Your task to perform on an android device: Find coffee shops on Maps Image 0: 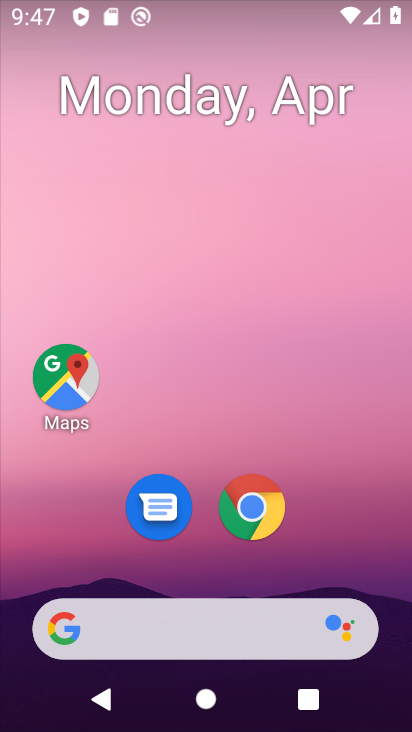
Step 0: click (82, 382)
Your task to perform on an android device: Find coffee shops on Maps Image 1: 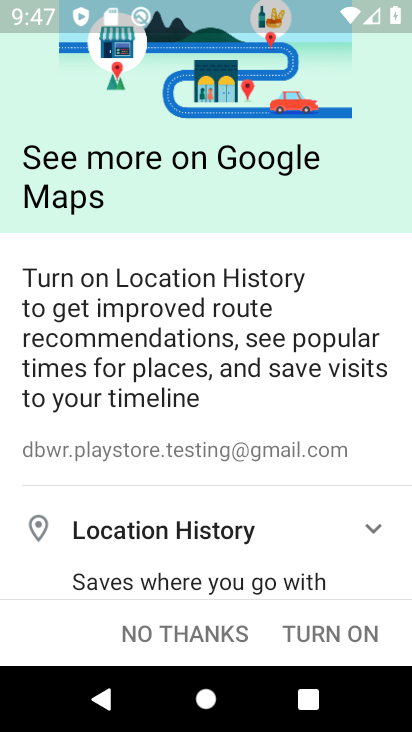
Step 1: click (239, 640)
Your task to perform on an android device: Find coffee shops on Maps Image 2: 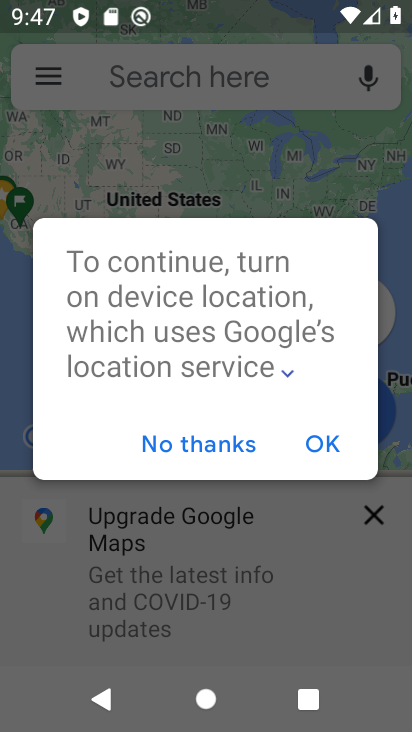
Step 2: click (328, 446)
Your task to perform on an android device: Find coffee shops on Maps Image 3: 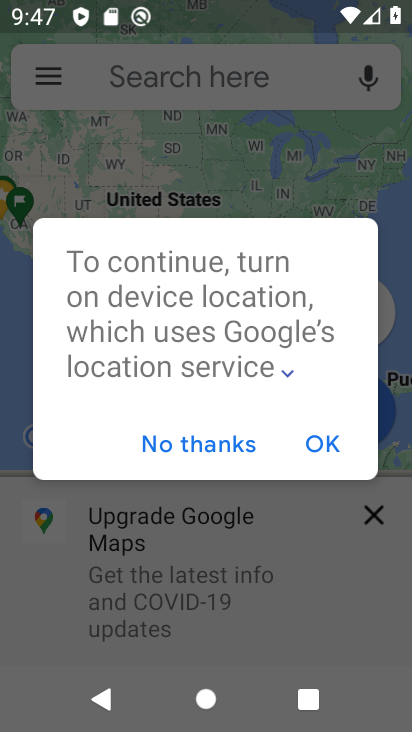
Step 3: click (328, 447)
Your task to perform on an android device: Find coffee shops on Maps Image 4: 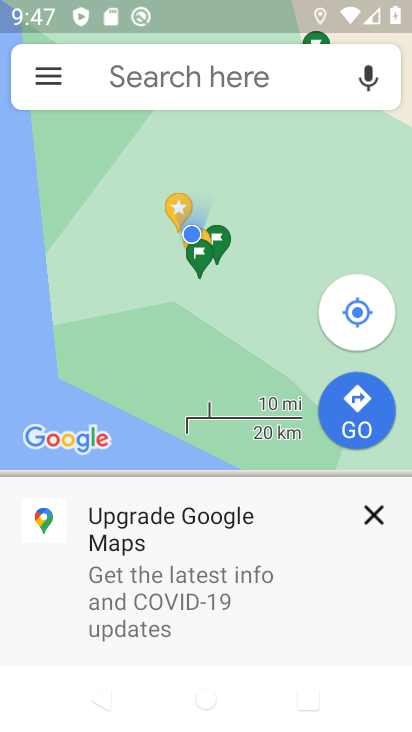
Step 4: click (247, 85)
Your task to perform on an android device: Find coffee shops on Maps Image 5: 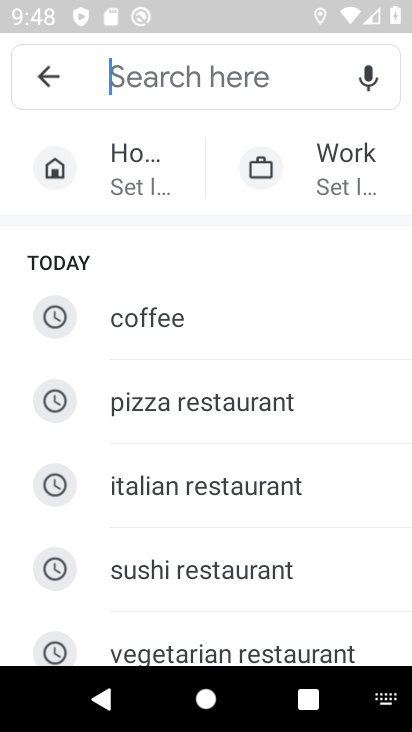
Step 5: type "coffee shops"
Your task to perform on an android device: Find coffee shops on Maps Image 6: 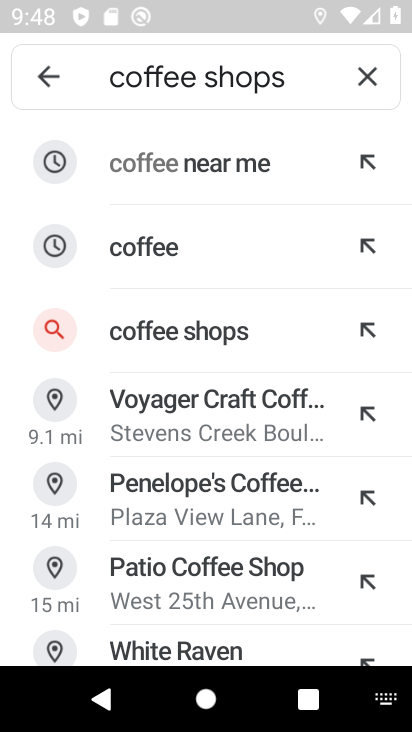
Step 6: click (188, 310)
Your task to perform on an android device: Find coffee shops on Maps Image 7: 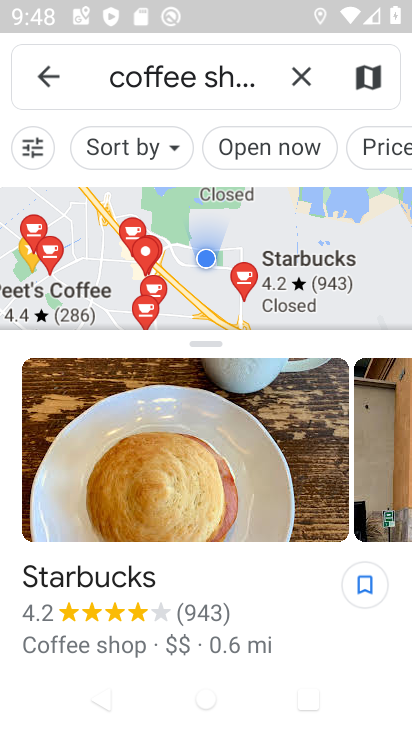
Step 7: task complete